Your task to perform on an android device: toggle improve location accuracy Image 0: 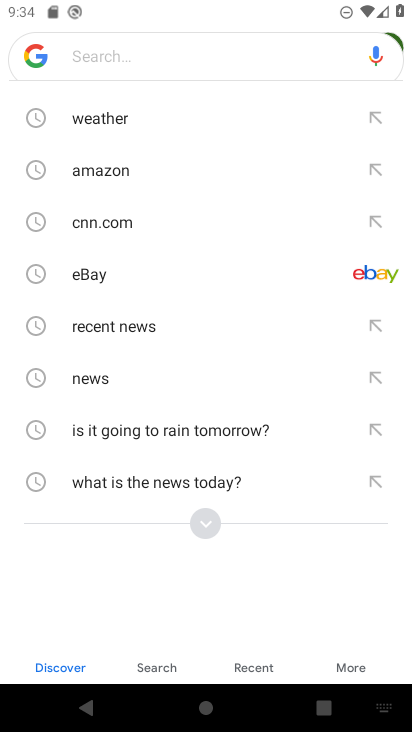
Step 0: press home button
Your task to perform on an android device: toggle improve location accuracy Image 1: 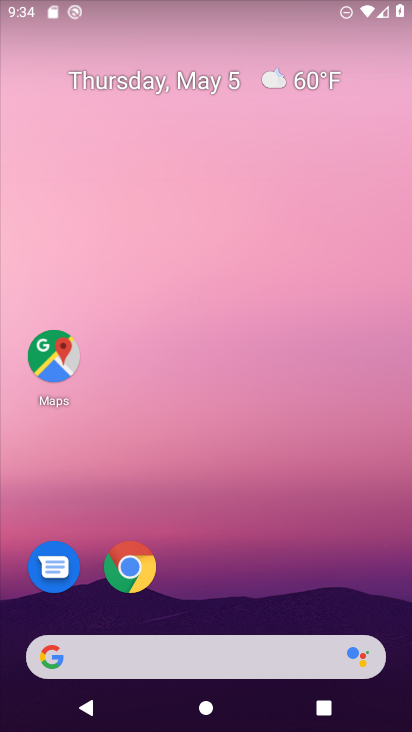
Step 1: drag from (209, 725) to (176, 111)
Your task to perform on an android device: toggle improve location accuracy Image 2: 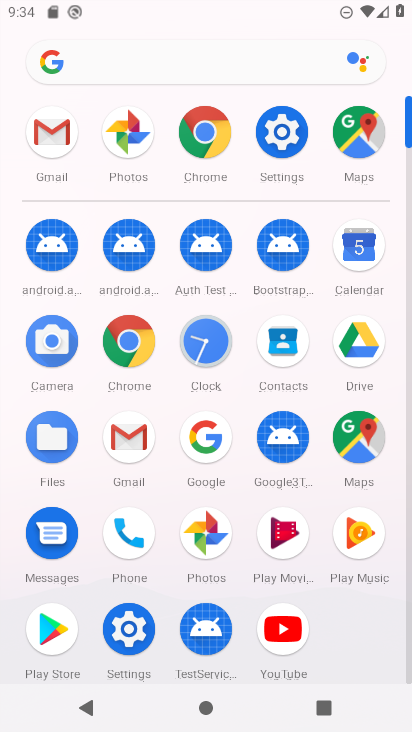
Step 2: click (296, 134)
Your task to perform on an android device: toggle improve location accuracy Image 3: 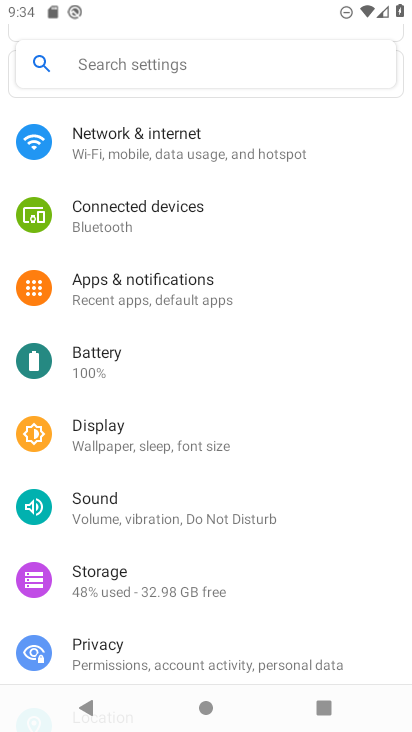
Step 3: drag from (172, 641) to (174, 273)
Your task to perform on an android device: toggle improve location accuracy Image 4: 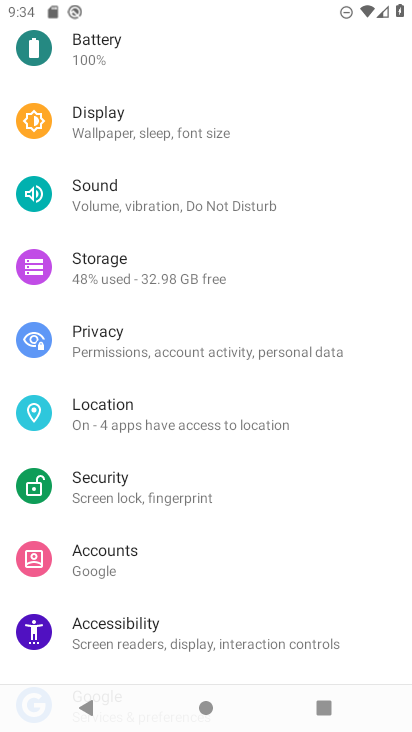
Step 4: click (117, 420)
Your task to perform on an android device: toggle improve location accuracy Image 5: 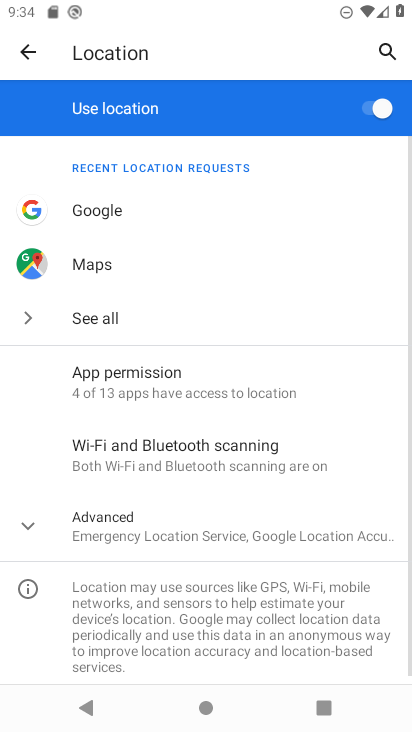
Step 5: click (103, 533)
Your task to perform on an android device: toggle improve location accuracy Image 6: 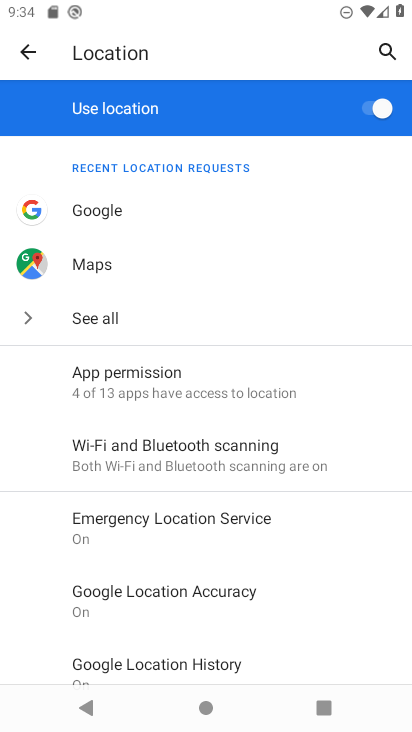
Step 6: click (141, 591)
Your task to perform on an android device: toggle improve location accuracy Image 7: 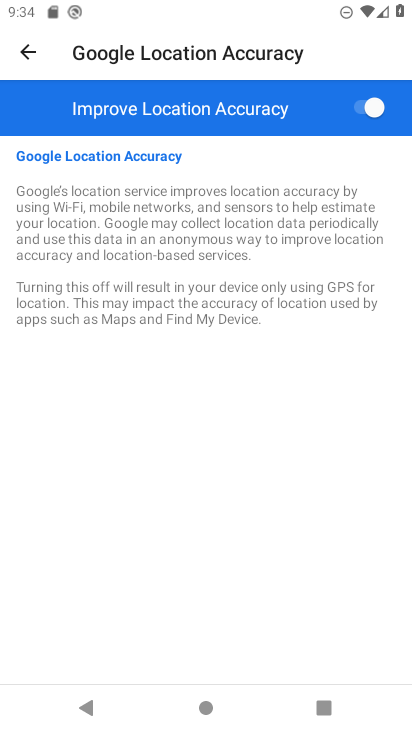
Step 7: click (361, 111)
Your task to perform on an android device: toggle improve location accuracy Image 8: 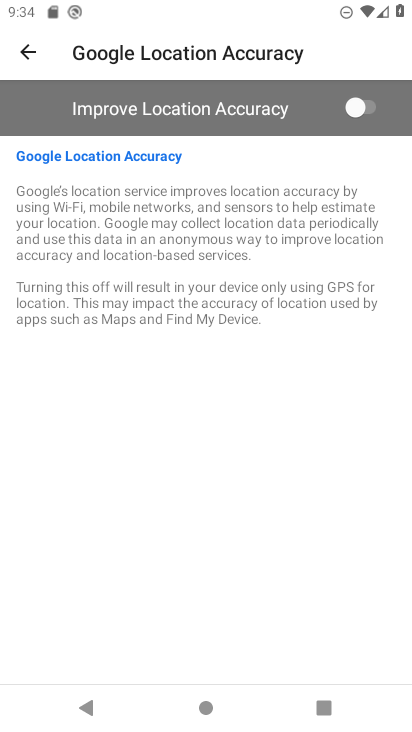
Step 8: task complete